Your task to perform on an android device: install app "Spotify: Music and Podcasts" Image 0: 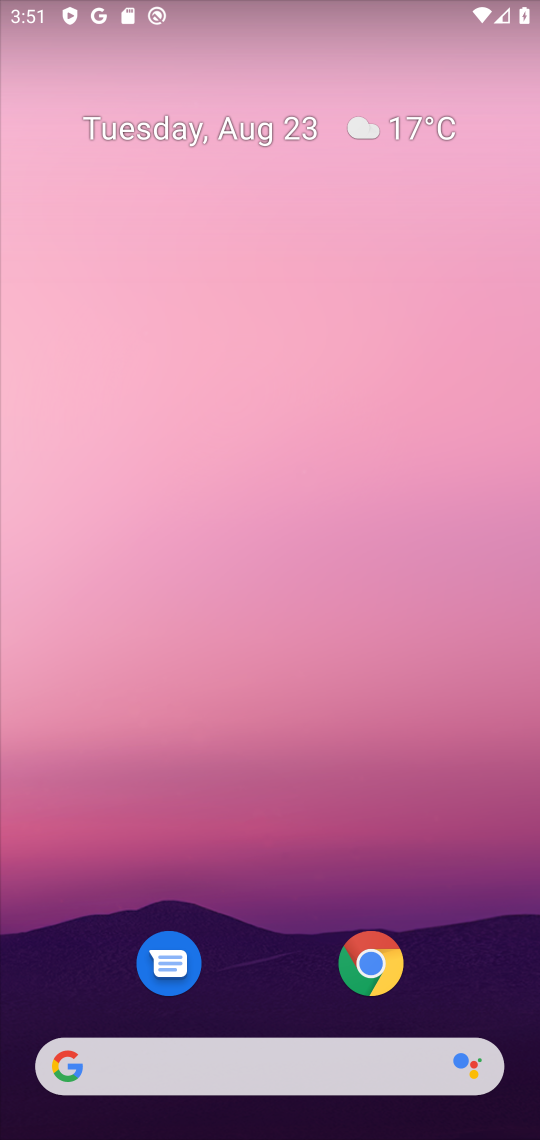
Step 0: drag from (269, 1001) to (299, 143)
Your task to perform on an android device: install app "Spotify: Music and Podcasts" Image 1: 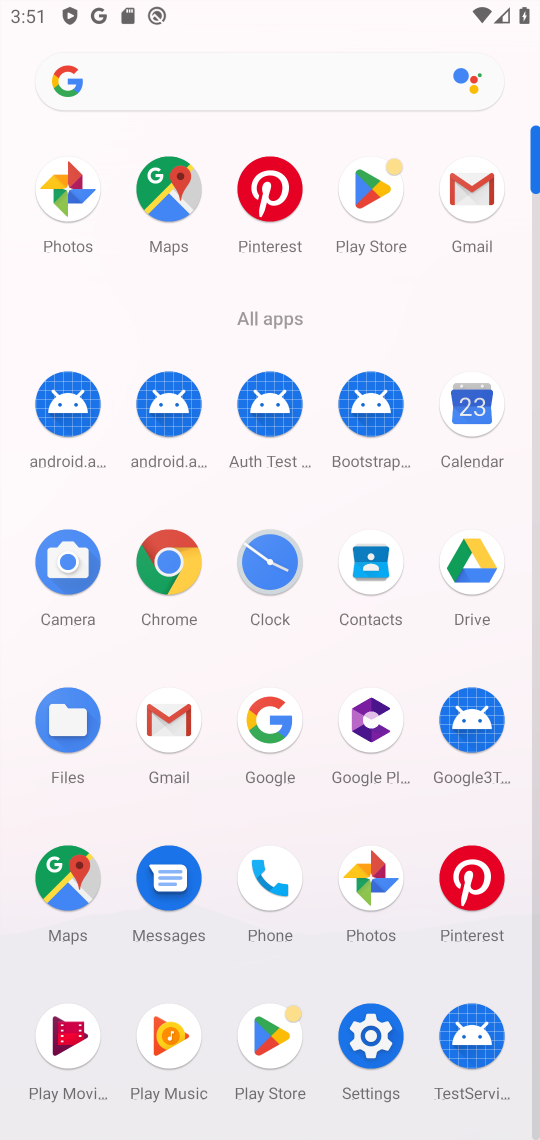
Step 1: click (373, 175)
Your task to perform on an android device: install app "Spotify: Music and Podcasts" Image 2: 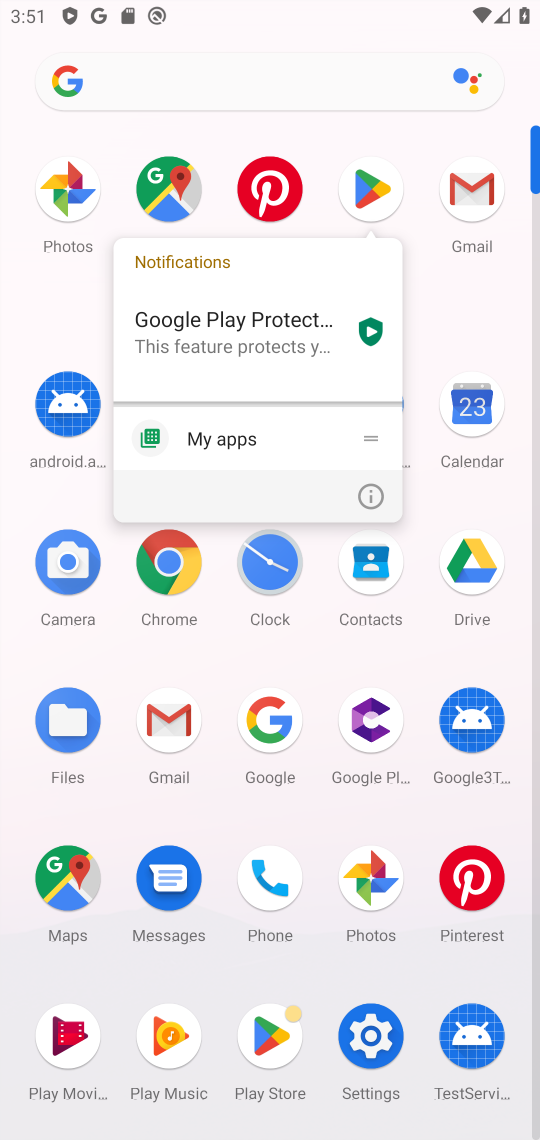
Step 2: click (372, 181)
Your task to perform on an android device: install app "Spotify: Music and Podcasts" Image 3: 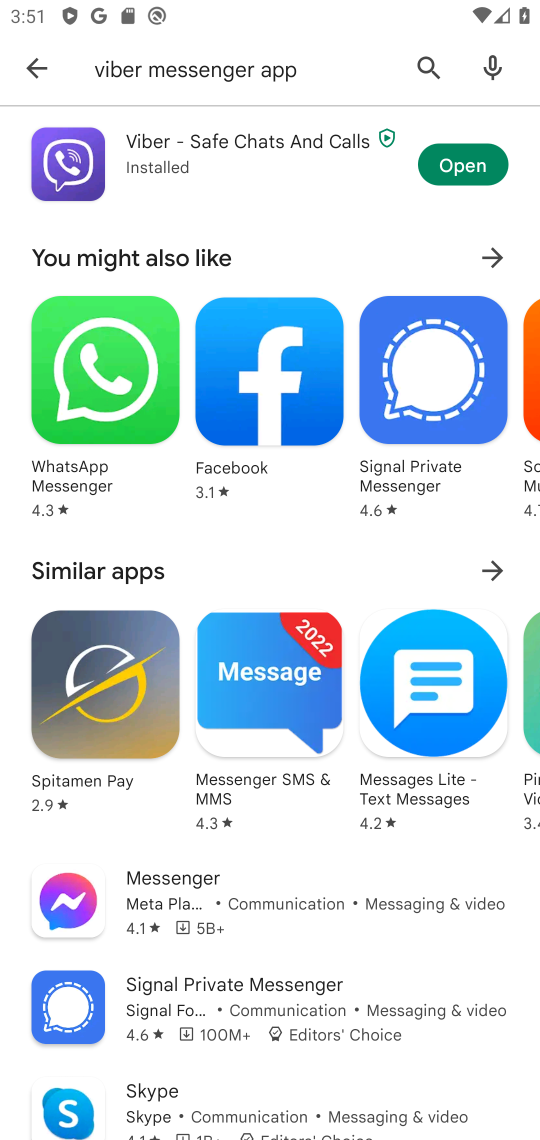
Step 3: click (411, 59)
Your task to perform on an android device: install app "Spotify: Music and Podcasts" Image 4: 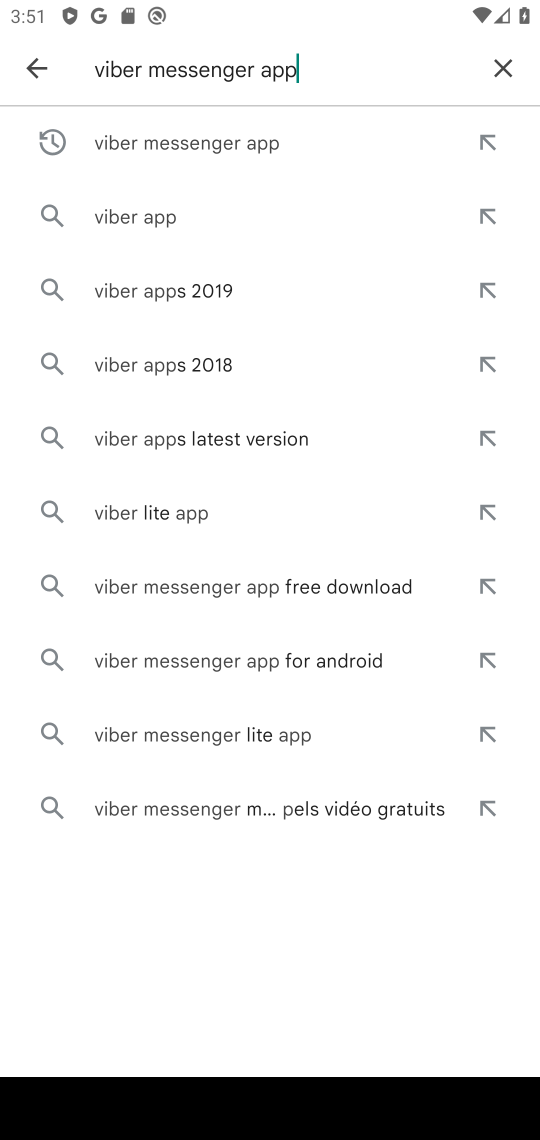
Step 4: click (505, 73)
Your task to perform on an android device: install app "Spotify: Music and Podcasts" Image 5: 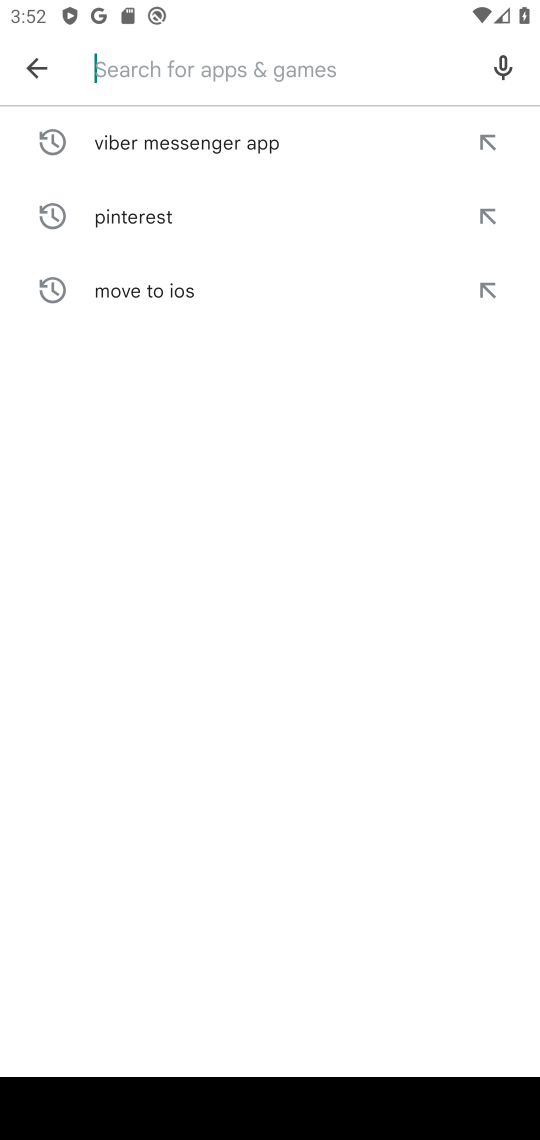
Step 5: type "Spotify: Music and Podcasts"
Your task to perform on an android device: install app "Spotify: Music and Podcasts" Image 6: 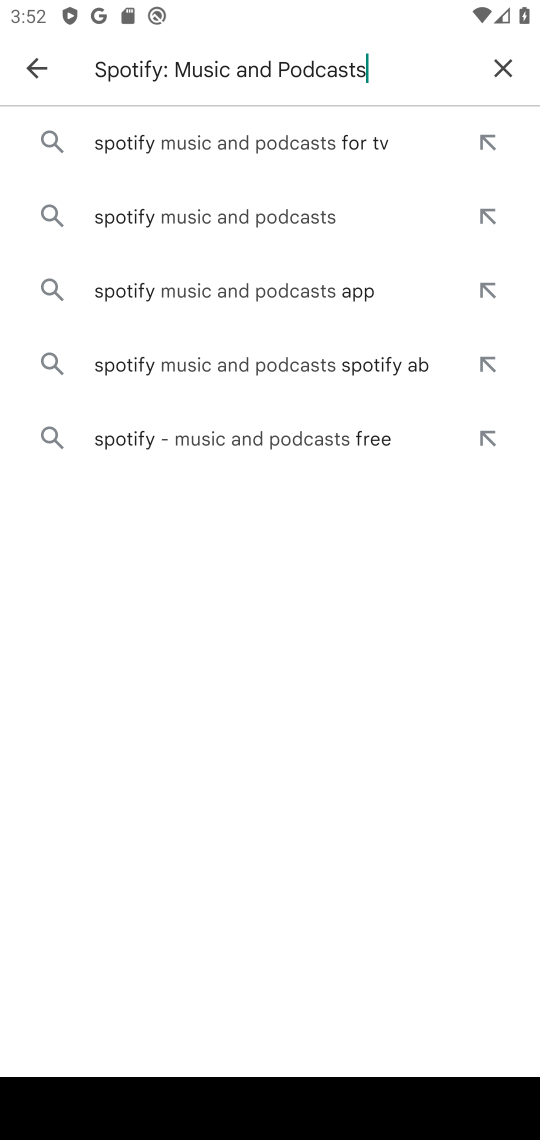
Step 6: click (288, 217)
Your task to perform on an android device: install app "Spotify: Music and Podcasts" Image 7: 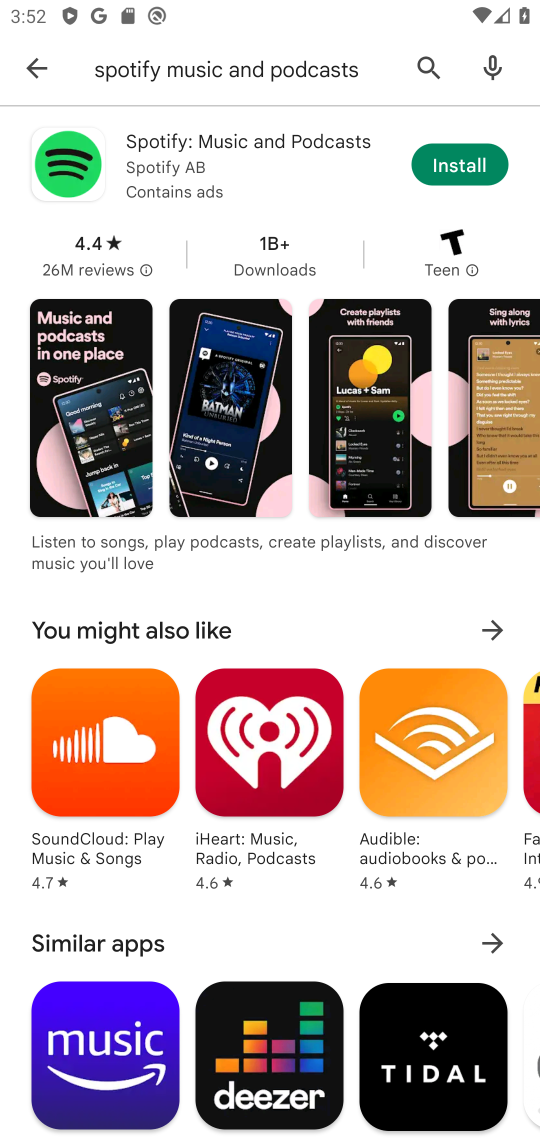
Step 7: click (464, 160)
Your task to perform on an android device: install app "Spotify: Music and Podcasts" Image 8: 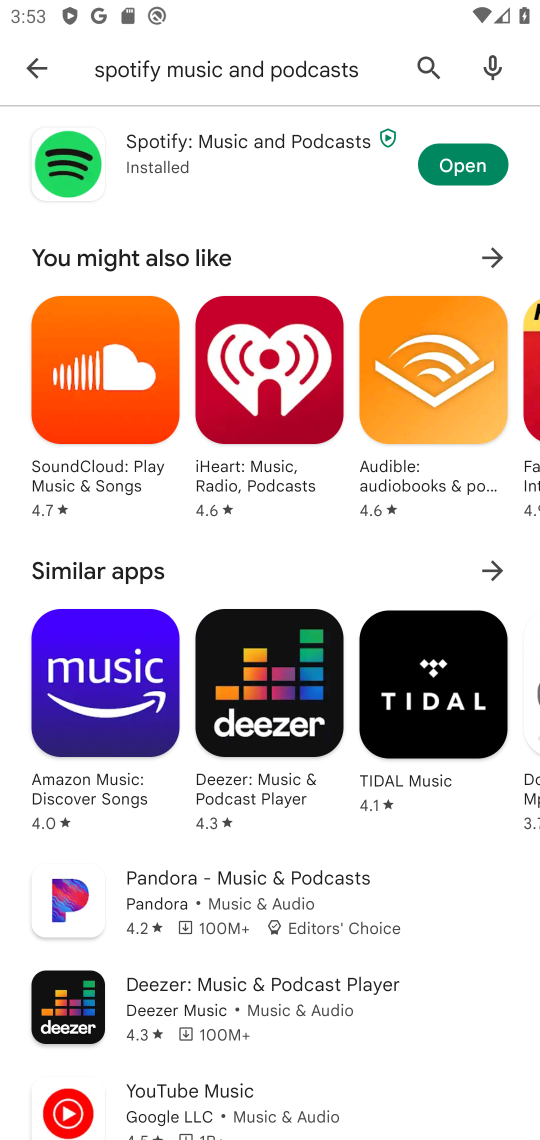
Step 8: click (446, 167)
Your task to perform on an android device: install app "Spotify: Music and Podcasts" Image 9: 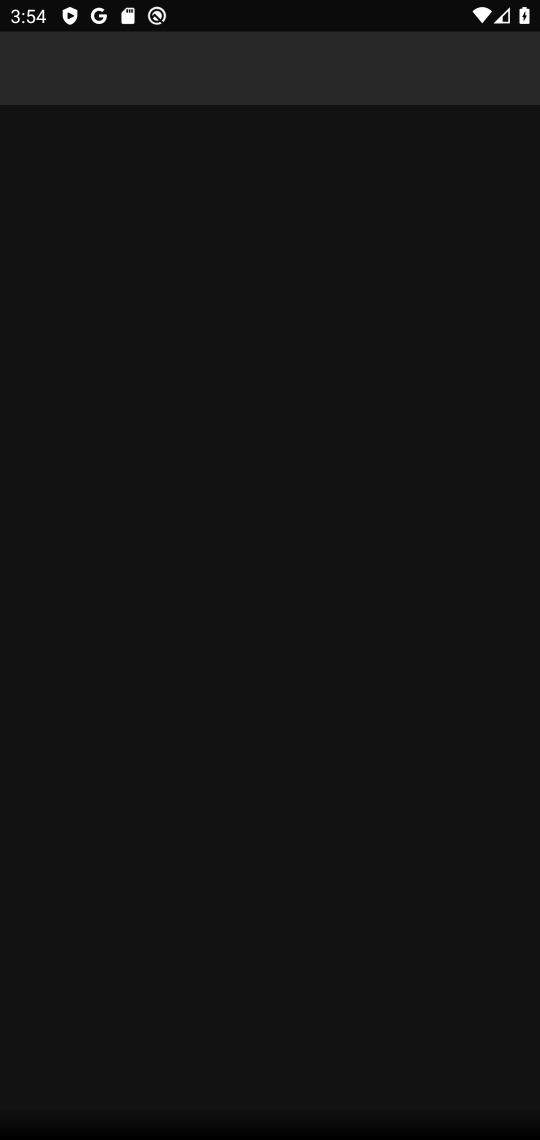
Step 9: task complete